Your task to perform on an android device: Open internet settings Image 0: 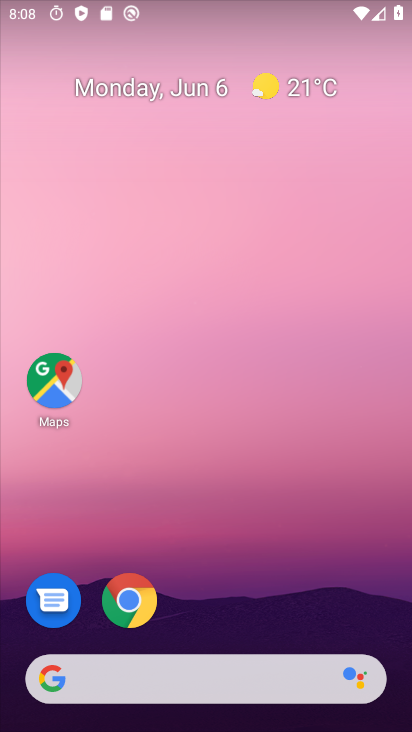
Step 0: drag from (252, 514) to (191, 0)
Your task to perform on an android device: Open internet settings Image 1: 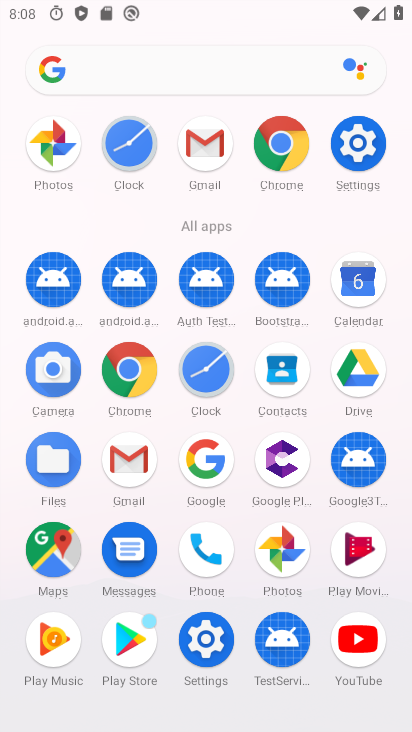
Step 1: click (357, 140)
Your task to perform on an android device: Open internet settings Image 2: 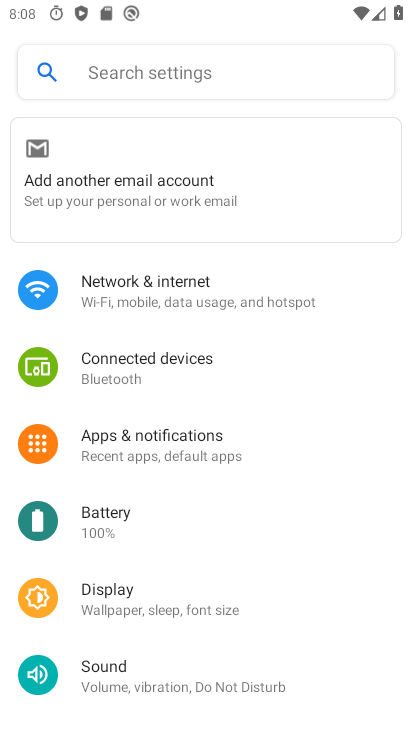
Step 2: click (207, 280)
Your task to perform on an android device: Open internet settings Image 3: 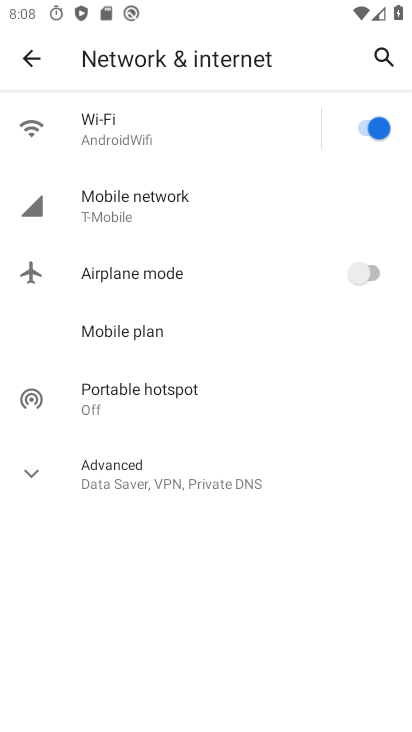
Step 3: click (25, 483)
Your task to perform on an android device: Open internet settings Image 4: 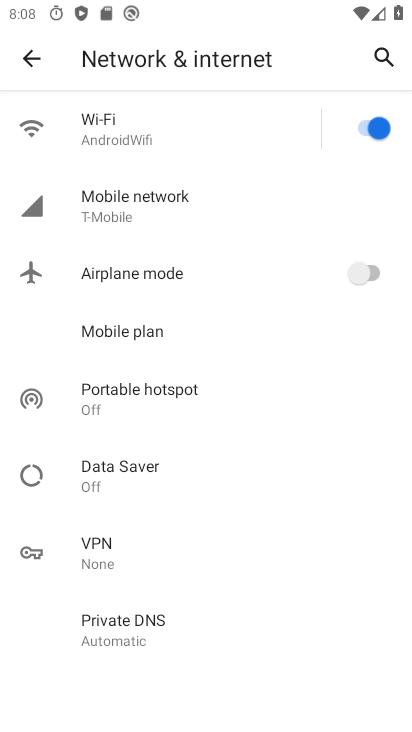
Step 4: task complete